Your task to perform on an android device: show emergency info Image 0: 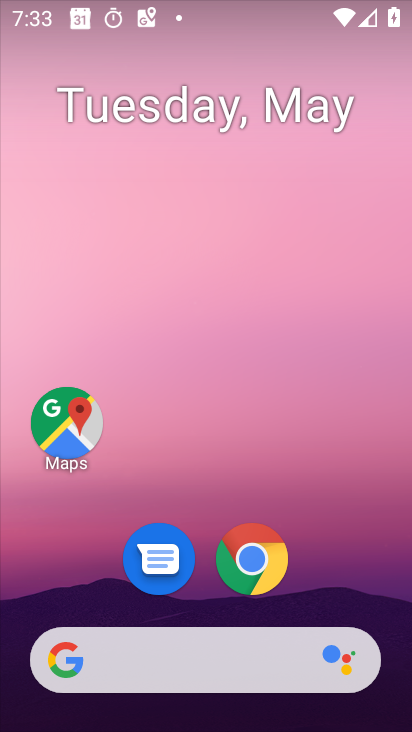
Step 0: drag from (396, 625) to (249, 44)
Your task to perform on an android device: show emergency info Image 1: 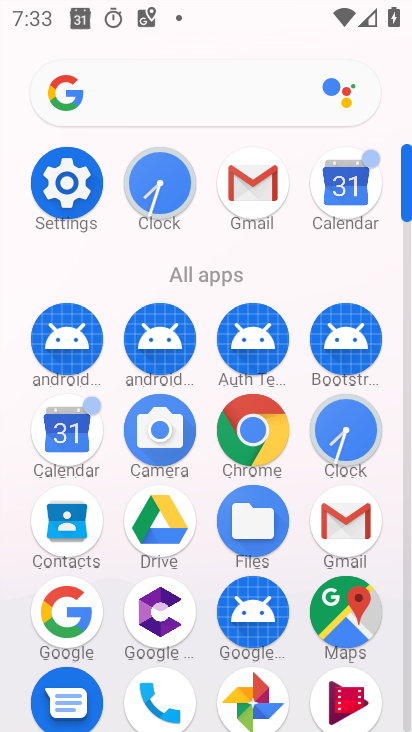
Step 1: click (57, 178)
Your task to perform on an android device: show emergency info Image 2: 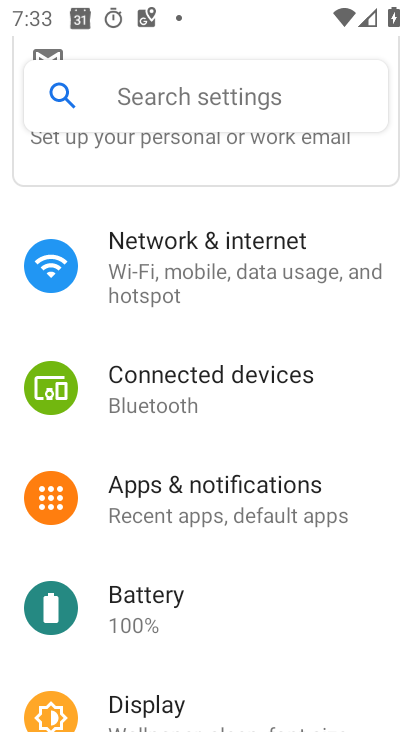
Step 2: drag from (189, 698) to (197, 184)
Your task to perform on an android device: show emergency info Image 3: 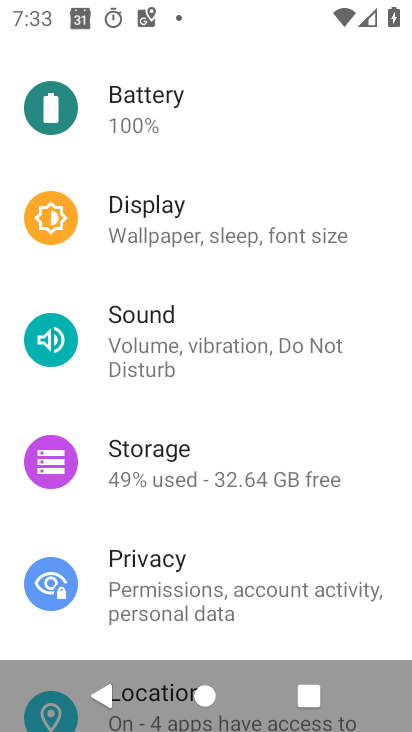
Step 3: drag from (161, 618) to (203, 12)
Your task to perform on an android device: show emergency info Image 4: 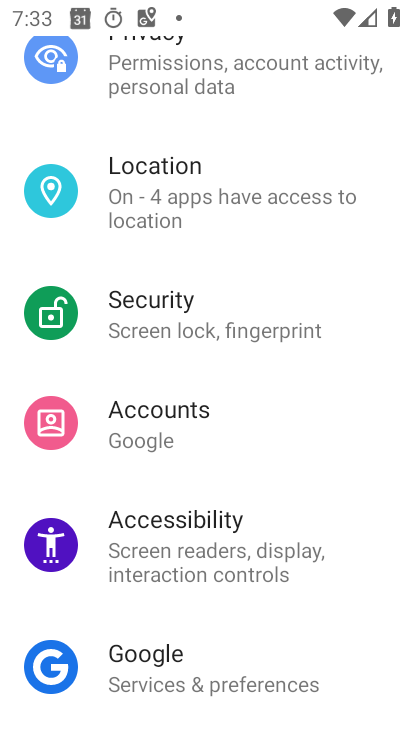
Step 4: drag from (146, 684) to (175, 18)
Your task to perform on an android device: show emergency info Image 5: 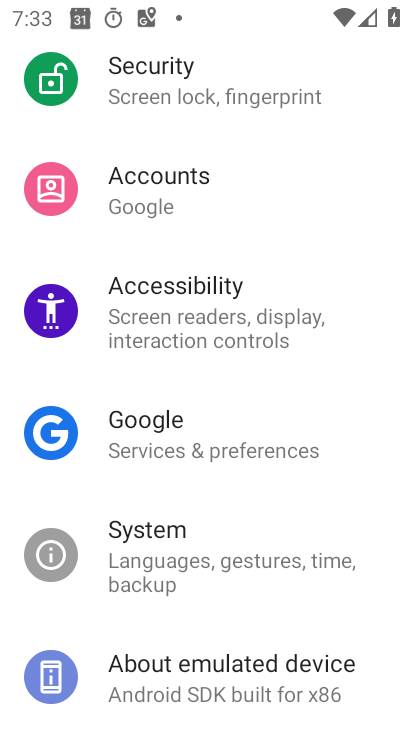
Step 5: click (210, 684)
Your task to perform on an android device: show emergency info Image 6: 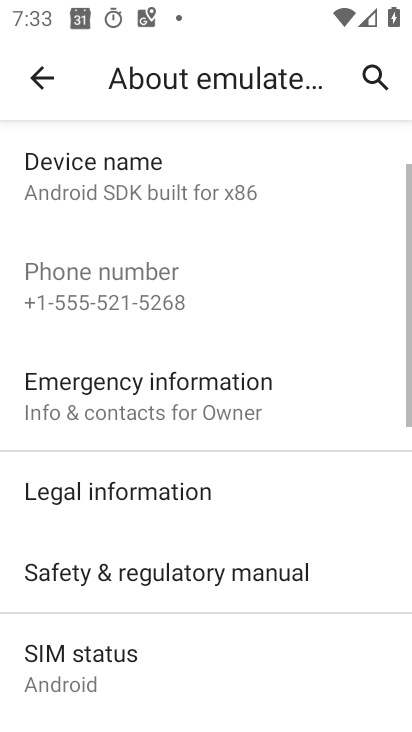
Step 6: click (148, 399)
Your task to perform on an android device: show emergency info Image 7: 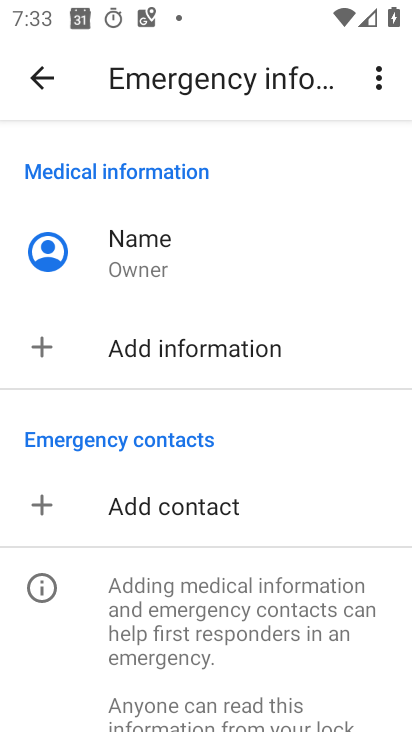
Step 7: task complete